Your task to perform on an android device: change alarm snooze length Image 0: 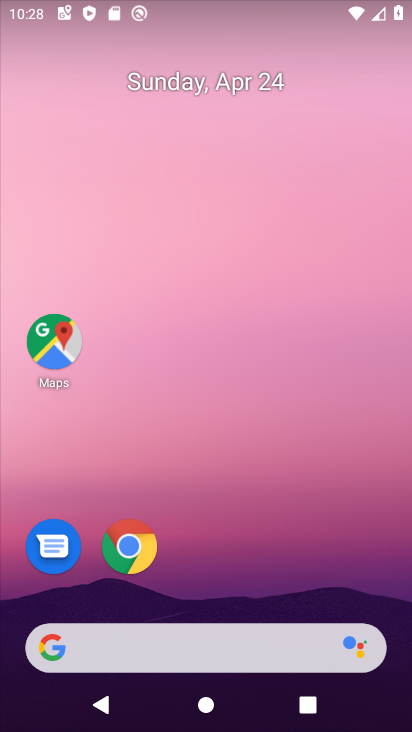
Step 0: drag from (350, 612) to (363, 6)
Your task to perform on an android device: change alarm snooze length Image 1: 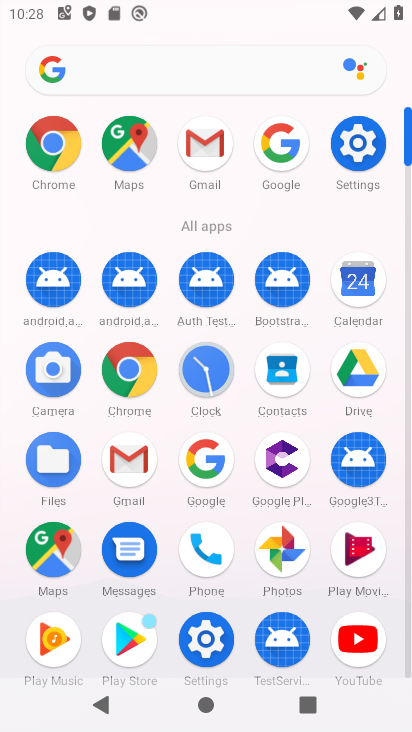
Step 1: click (204, 369)
Your task to perform on an android device: change alarm snooze length Image 2: 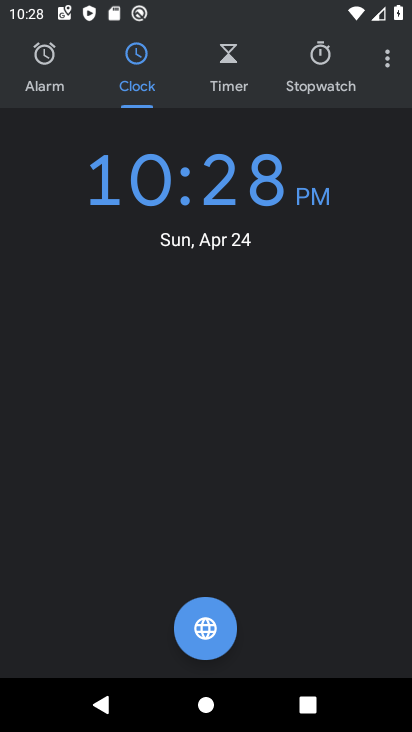
Step 2: click (387, 63)
Your task to perform on an android device: change alarm snooze length Image 3: 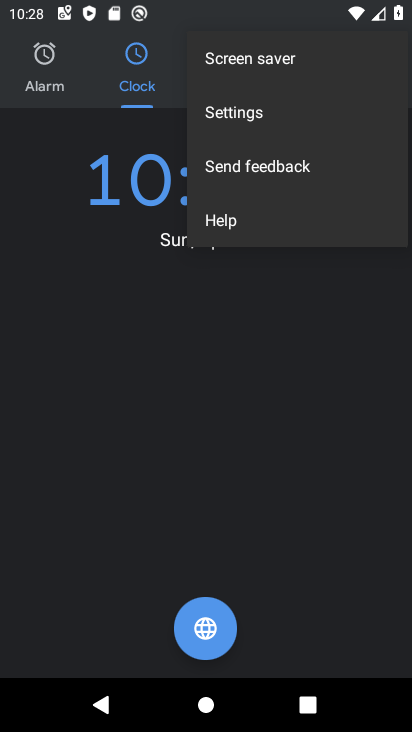
Step 3: click (230, 125)
Your task to perform on an android device: change alarm snooze length Image 4: 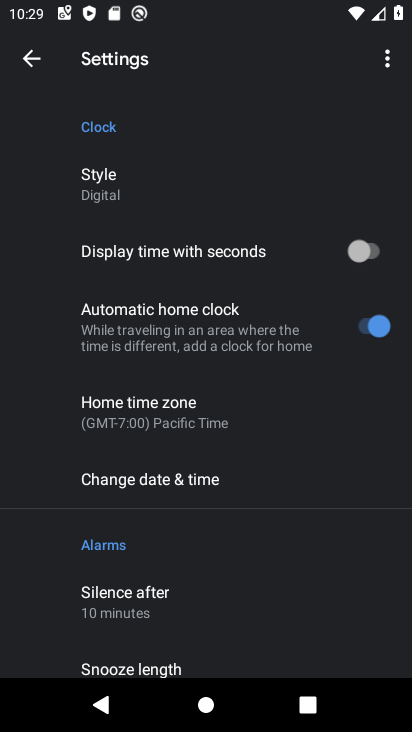
Step 4: drag from (194, 517) to (203, 112)
Your task to perform on an android device: change alarm snooze length Image 5: 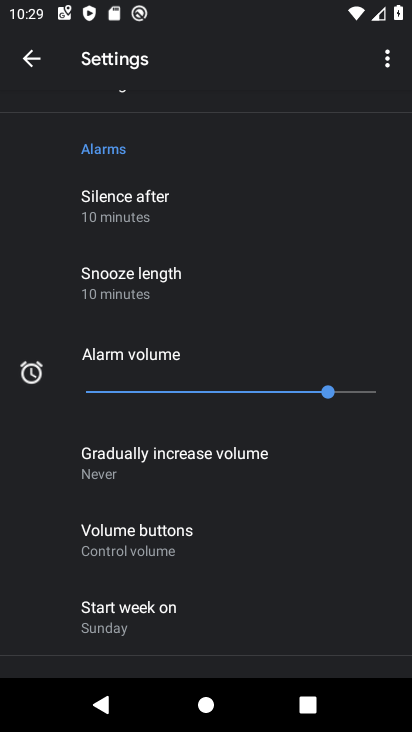
Step 5: click (114, 274)
Your task to perform on an android device: change alarm snooze length Image 6: 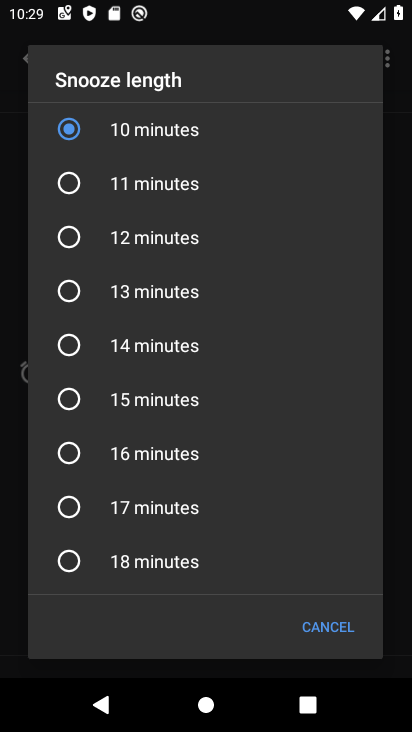
Step 6: click (69, 188)
Your task to perform on an android device: change alarm snooze length Image 7: 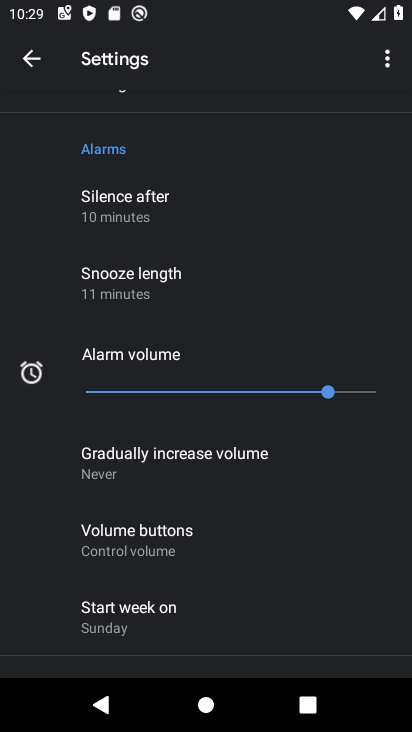
Step 7: task complete